Your task to perform on an android device: check battery use Image 0: 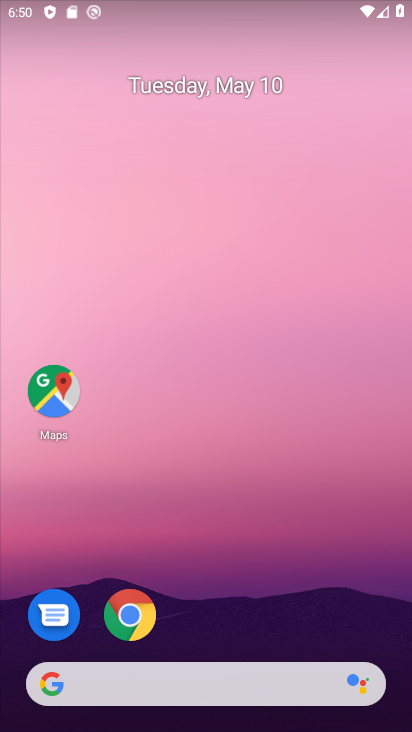
Step 0: drag from (246, 567) to (120, 63)
Your task to perform on an android device: check battery use Image 1: 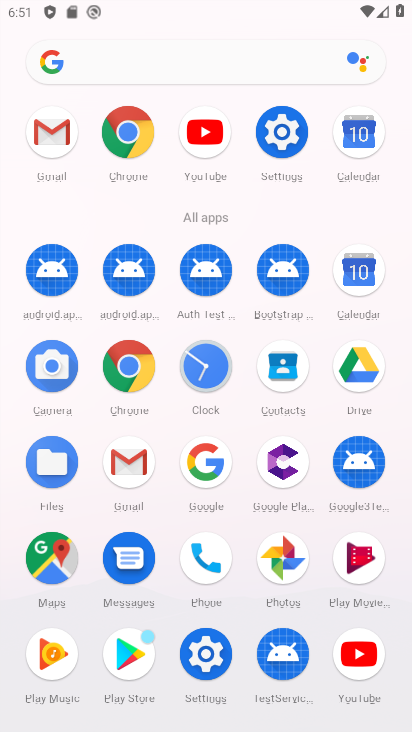
Step 1: click (283, 126)
Your task to perform on an android device: check battery use Image 2: 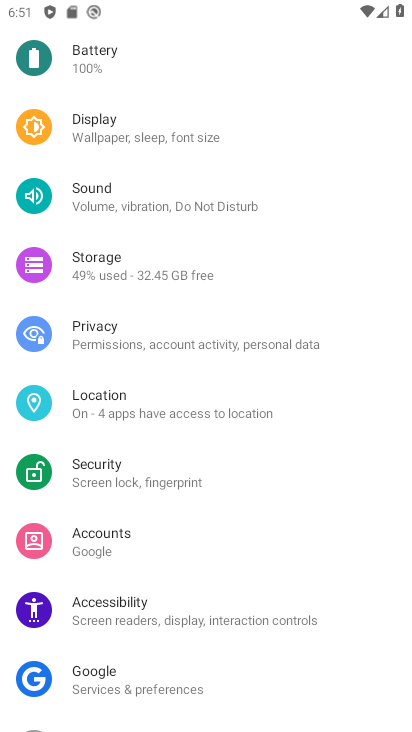
Step 2: click (84, 54)
Your task to perform on an android device: check battery use Image 3: 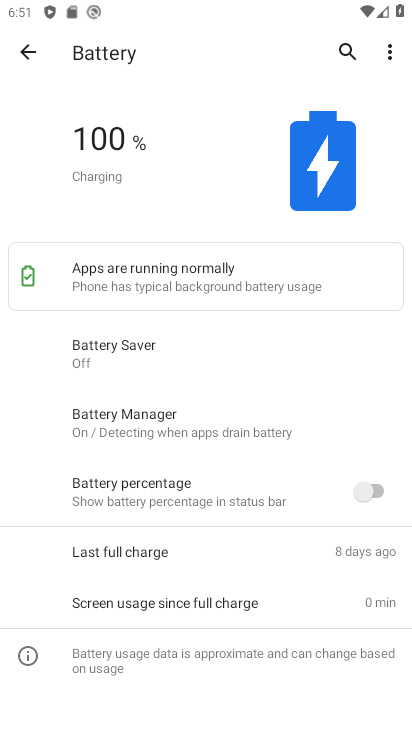
Step 3: task complete